Your task to perform on an android device: Search for Italian restaurants on Maps Image 0: 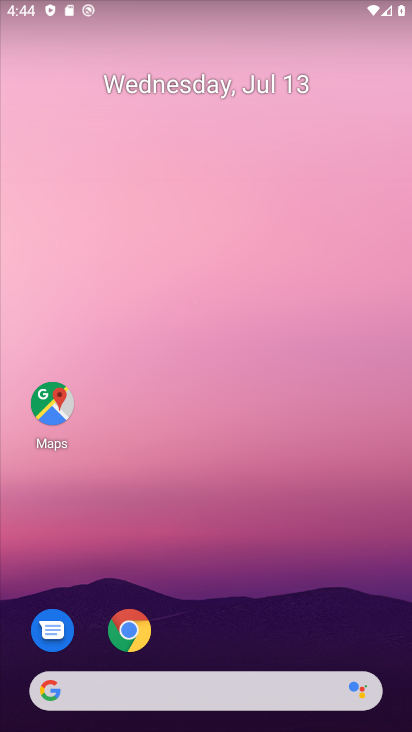
Step 0: drag from (216, 661) to (240, 217)
Your task to perform on an android device: Search for Italian restaurants on Maps Image 1: 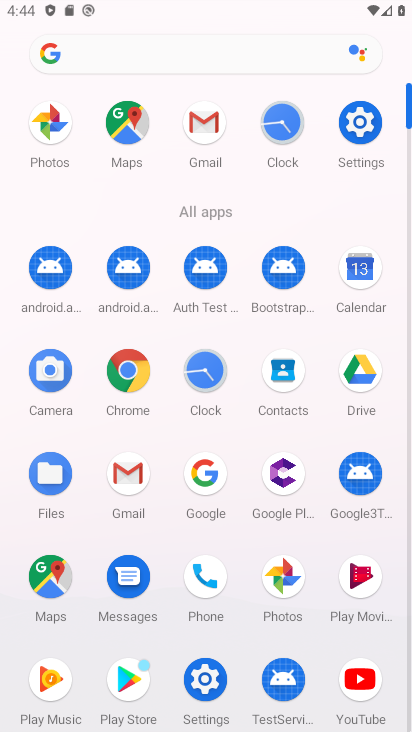
Step 1: click (56, 566)
Your task to perform on an android device: Search for Italian restaurants on Maps Image 2: 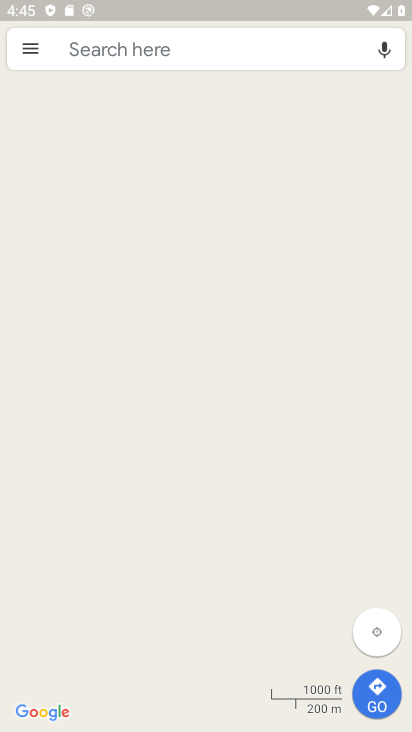
Step 2: click (160, 63)
Your task to perform on an android device: Search for Italian restaurants on Maps Image 3: 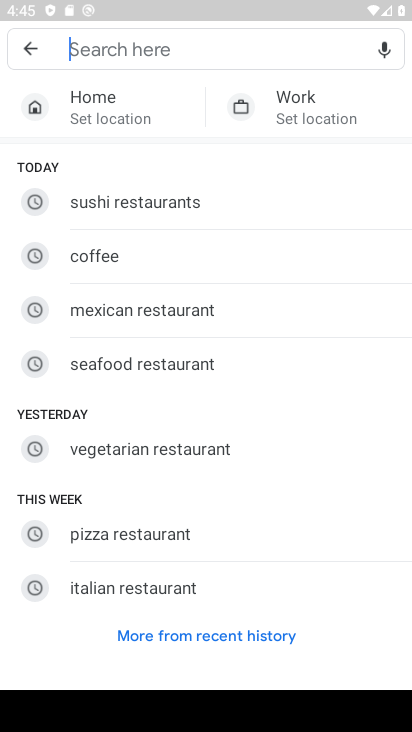
Step 3: type "Italian restaurants"
Your task to perform on an android device: Search for Italian restaurants on Maps Image 4: 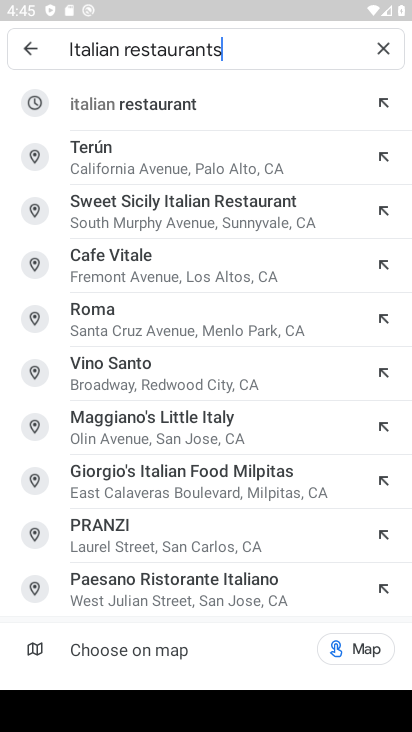
Step 4: click (150, 119)
Your task to perform on an android device: Search for Italian restaurants on Maps Image 5: 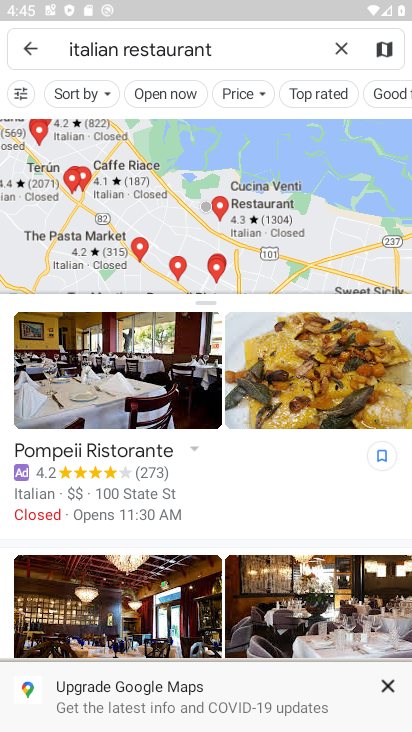
Step 5: task complete